Your task to perform on an android device: Open Google Image 0: 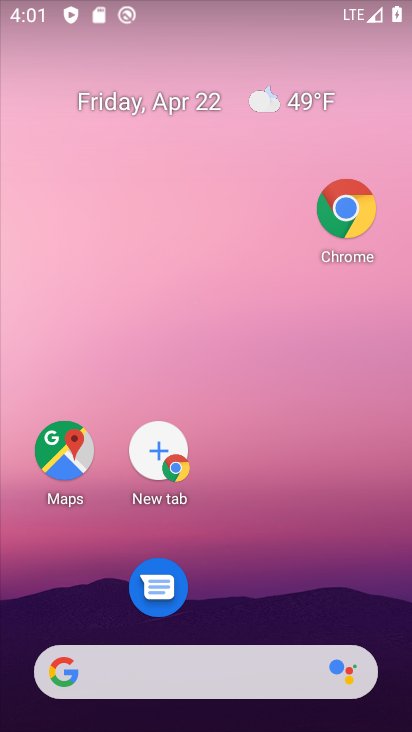
Step 0: click (150, 677)
Your task to perform on an android device: Open Google Image 1: 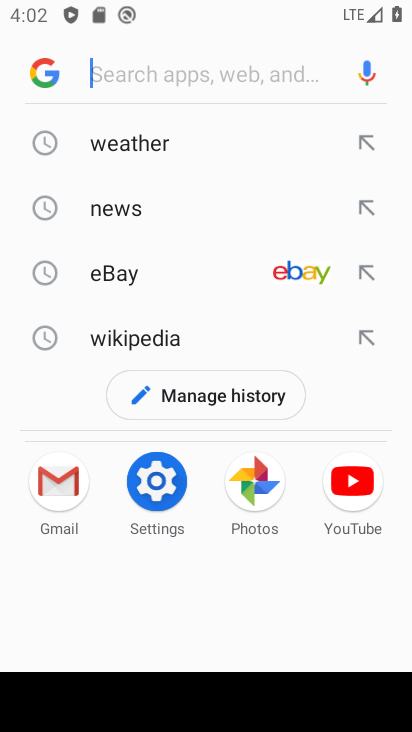
Step 1: task complete